Your task to perform on an android device: Open privacy settings Image 0: 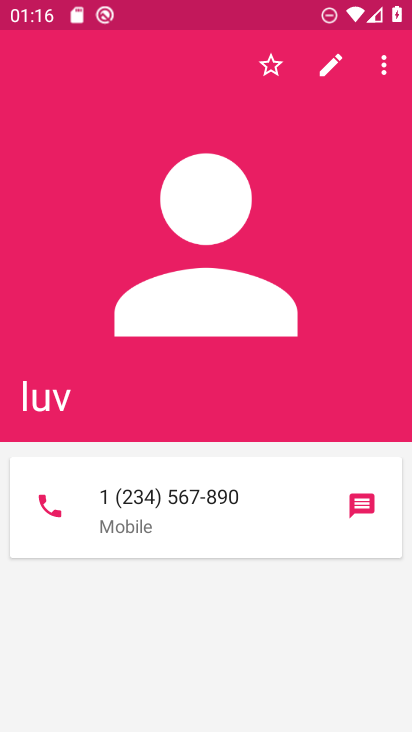
Step 0: press home button
Your task to perform on an android device: Open privacy settings Image 1: 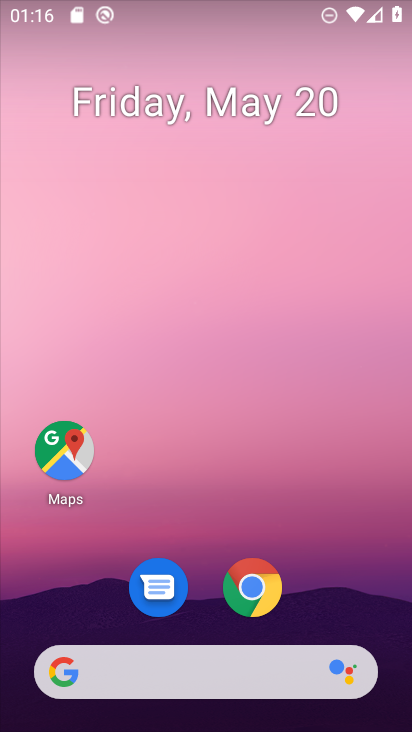
Step 1: drag from (334, 622) to (329, 293)
Your task to perform on an android device: Open privacy settings Image 2: 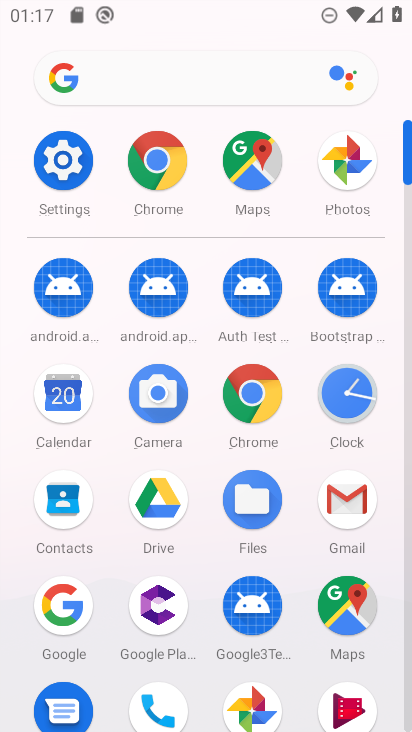
Step 2: click (62, 173)
Your task to perform on an android device: Open privacy settings Image 3: 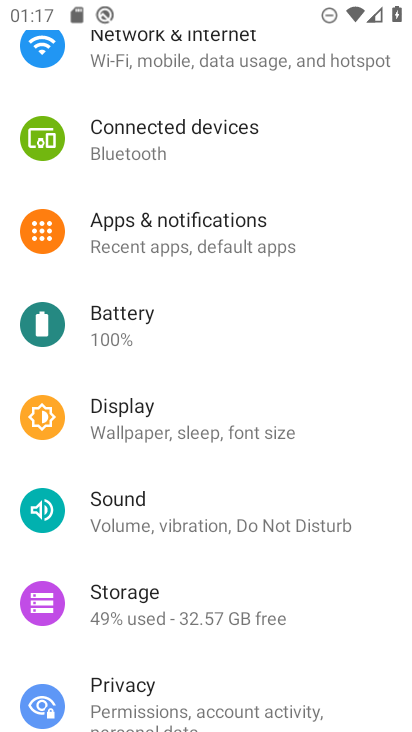
Step 3: drag from (352, 583) to (361, 349)
Your task to perform on an android device: Open privacy settings Image 4: 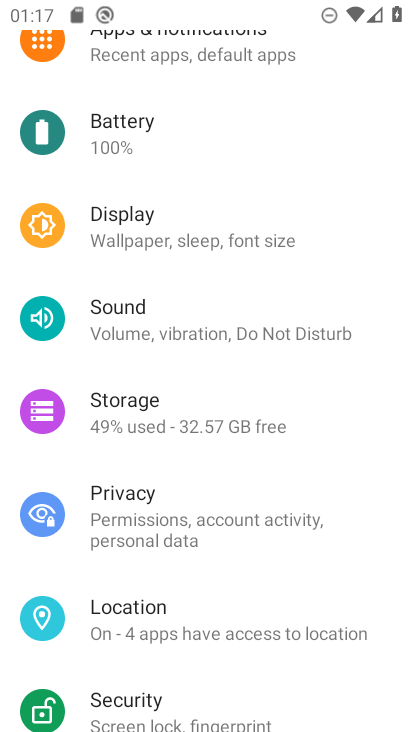
Step 4: drag from (365, 575) to (370, 353)
Your task to perform on an android device: Open privacy settings Image 5: 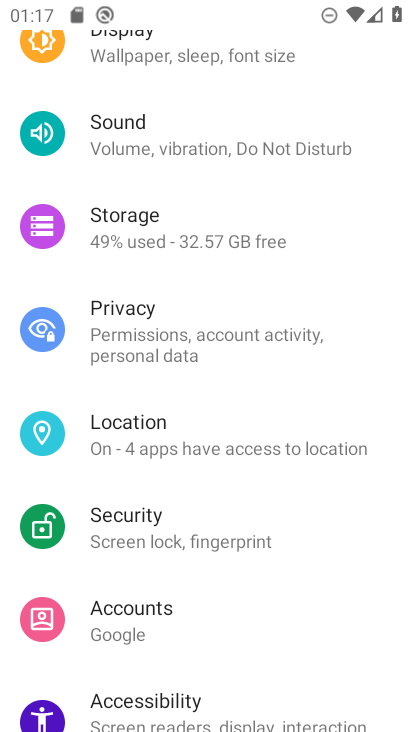
Step 5: drag from (355, 625) to (356, 382)
Your task to perform on an android device: Open privacy settings Image 6: 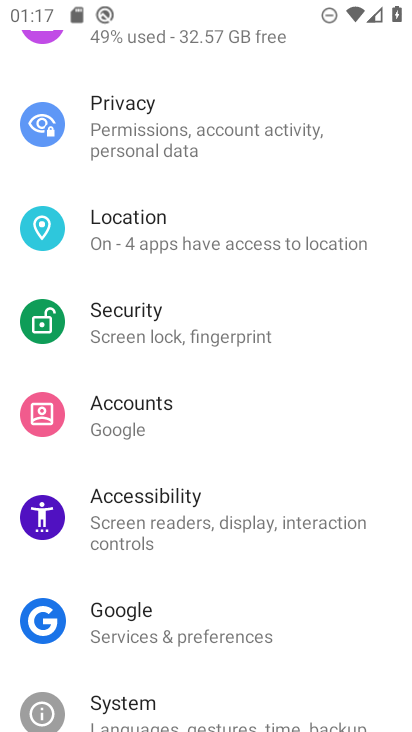
Step 6: drag from (344, 565) to (348, 499)
Your task to perform on an android device: Open privacy settings Image 7: 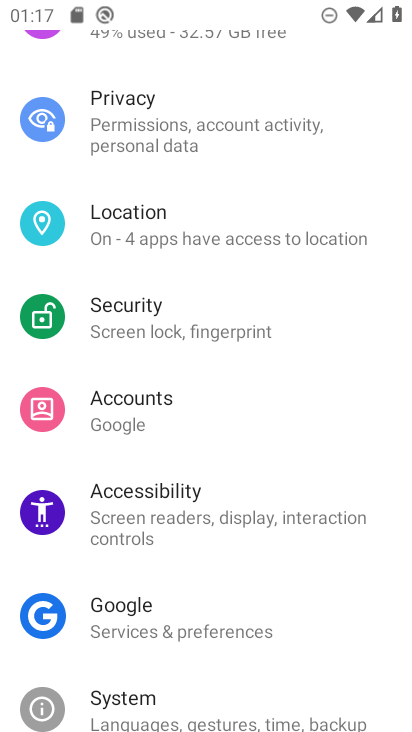
Step 7: drag from (331, 649) to (343, 456)
Your task to perform on an android device: Open privacy settings Image 8: 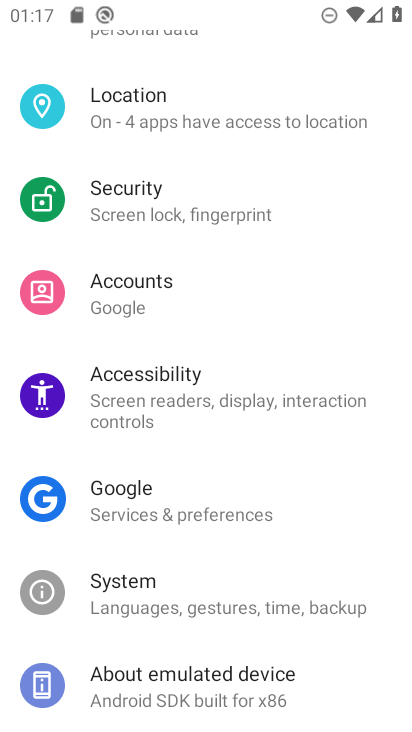
Step 8: drag from (333, 675) to (347, 484)
Your task to perform on an android device: Open privacy settings Image 9: 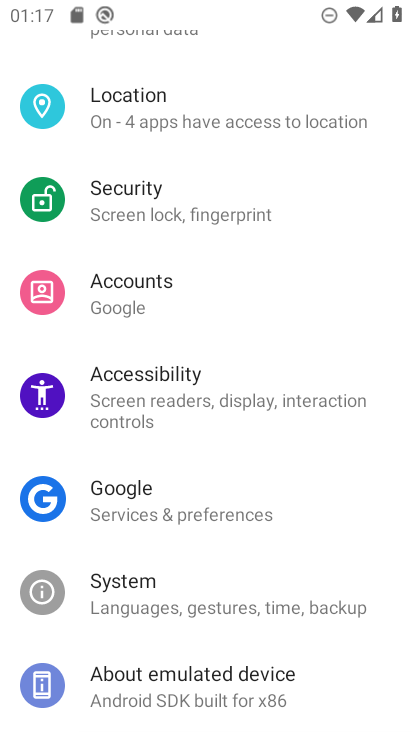
Step 9: drag from (345, 450) to (337, 600)
Your task to perform on an android device: Open privacy settings Image 10: 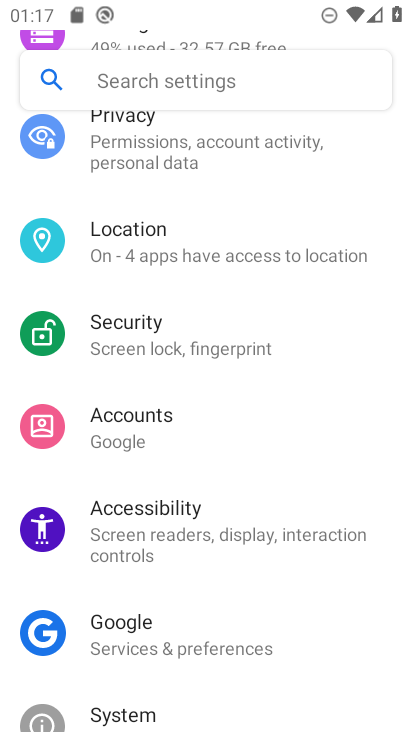
Step 10: drag from (323, 385) to (331, 596)
Your task to perform on an android device: Open privacy settings Image 11: 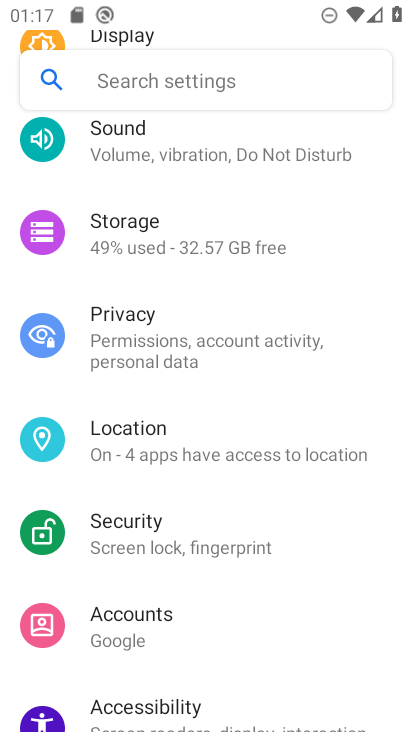
Step 11: drag from (350, 354) to (352, 518)
Your task to perform on an android device: Open privacy settings Image 12: 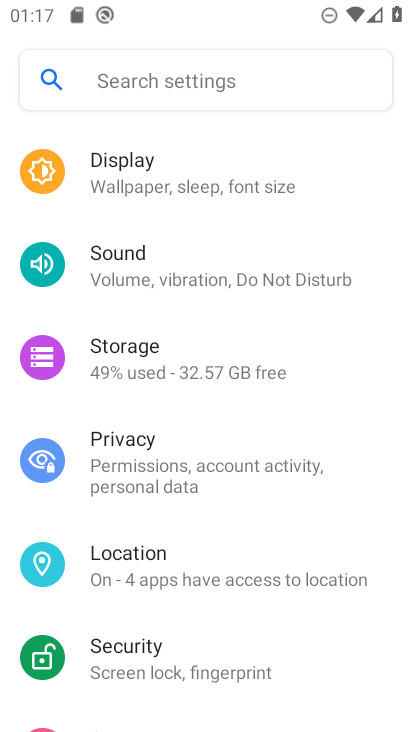
Step 12: drag from (360, 349) to (340, 511)
Your task to perform on an android device: Open privacy settings Image 13: 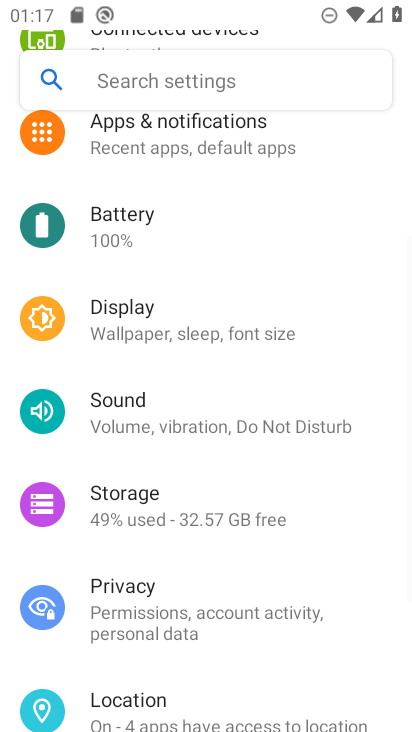
Step 13: drag from (335, 295) to (334, 470)
Your task to perform on an android device: Open privacy settings Image 14: 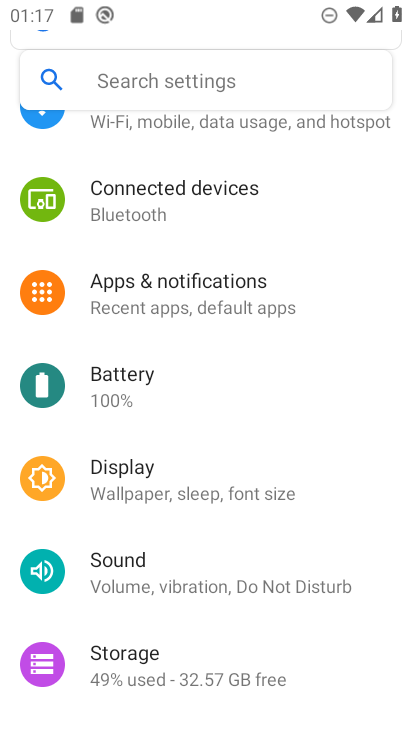
Step 14: drag from (343, 280) to (337, 437)
Your task to perform on an android device: Open privacy settings Image 15: 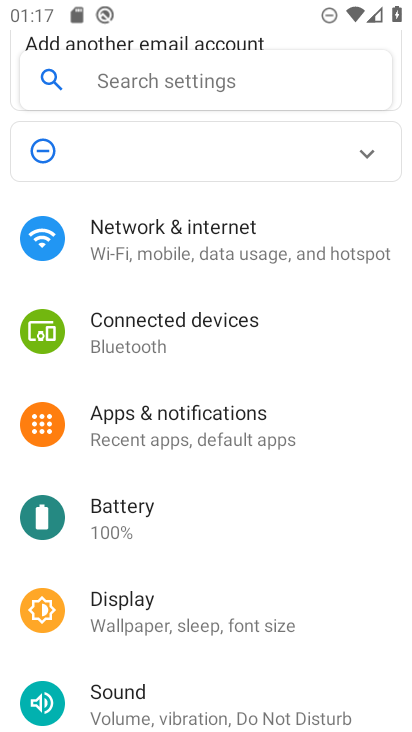
Step 15: drag from (332, 227) to (334, 430)
Your task to perform on an android device: Open privacy settings Image 16: 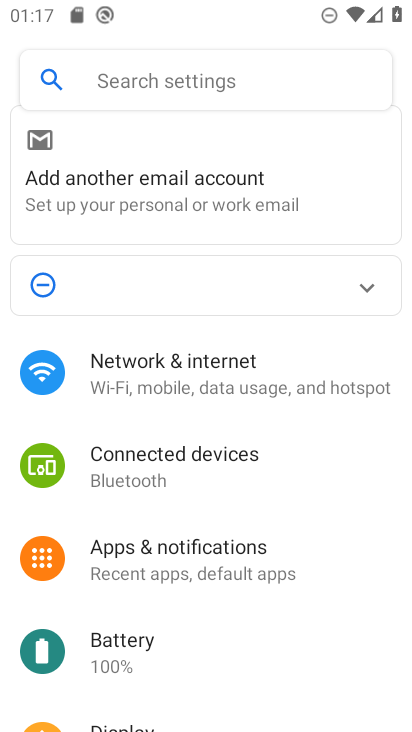
Step 16: drag from (336, 490) to (338, 358)
Your task to perform on an android device: Open privacy settings Image 17: 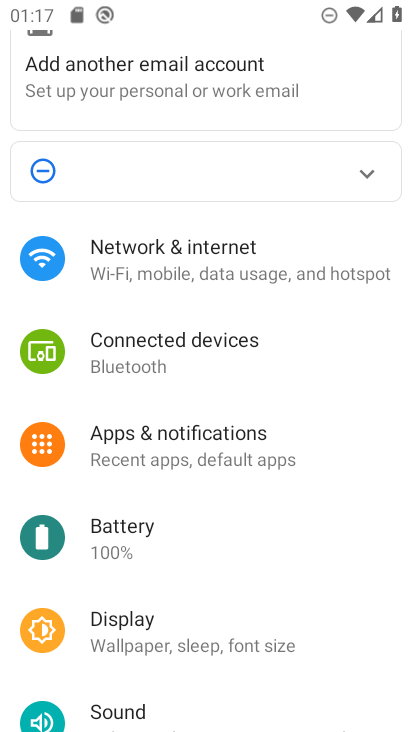
Step 17: drag from (341, 543) to (348, 404)
Your task to perform on an android device: Open privacy settings Image 18: 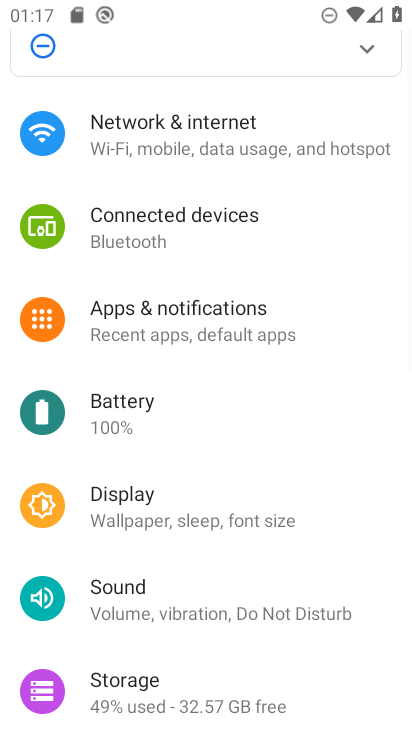
Step 18: drag from (355, 589) to (352, 440)
Your task to perform on an android device: Open privacy settings Image 19: 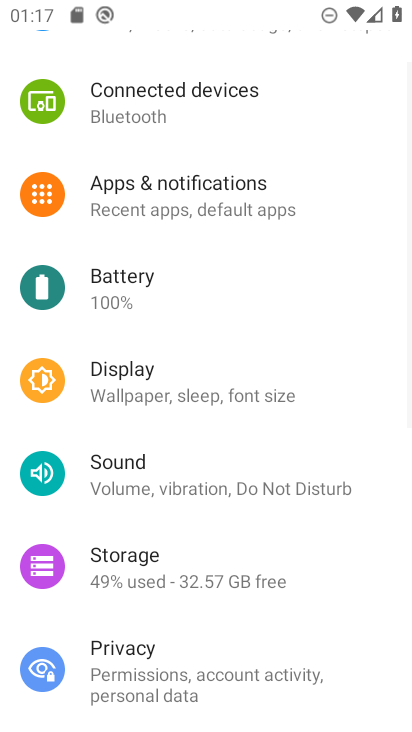
Step 19: drag from (337, 599) to (343, 477)
Your task to perform on an android device: Open privacy settings Image 20: 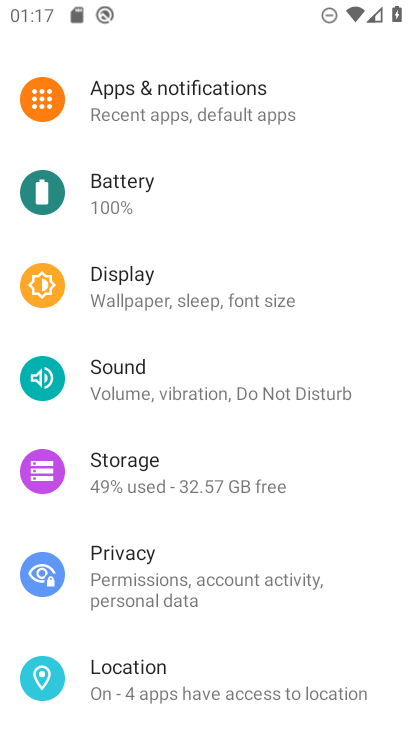
Step 20: drag from (331, 643) to (331, 526)
Your task to perform on an android device: Open privacy settings Image 21: 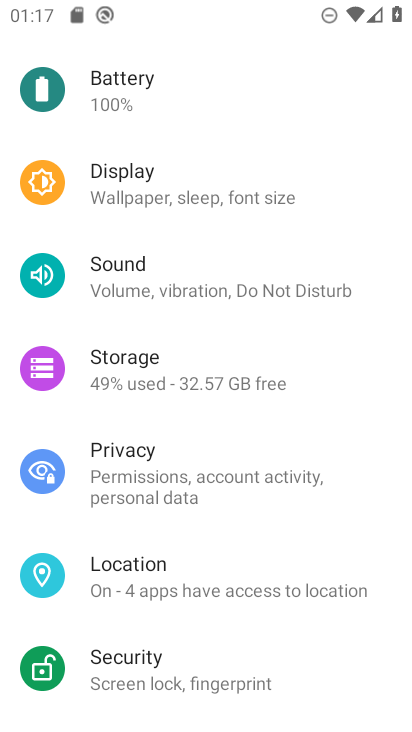
Step 21: click (222, 464)
Your task to perform on an android device: Open privacy settings Image 22: 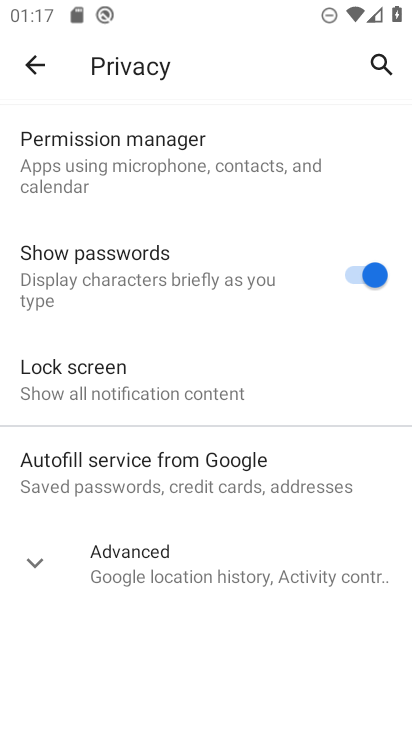
Step 22: task complete